Your task to perform on an android device: turn on wifi Image 0: 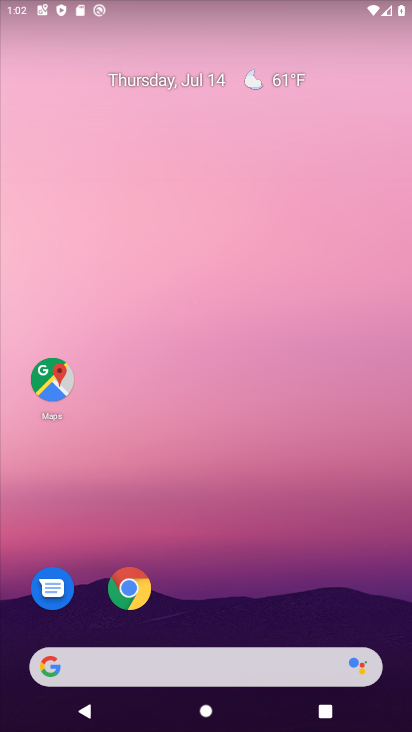
Step 0: drag from (228, 578) to (196, 217)
Your task to perform on an android device: turn on wifi Image 1: 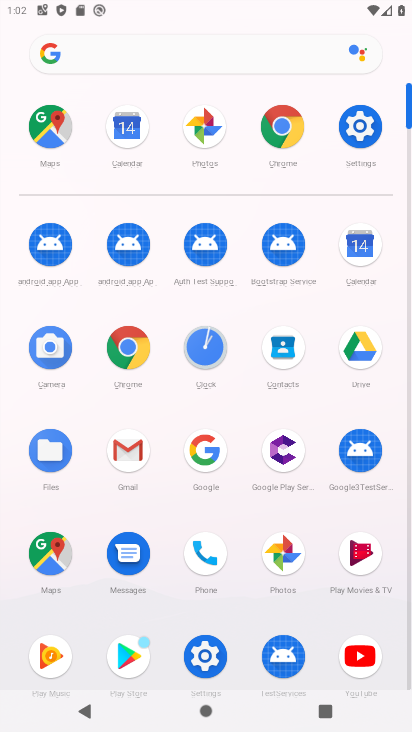
Step 1: click (349, 118)
Your task to perform on an android device: turn on wifi Image 2: 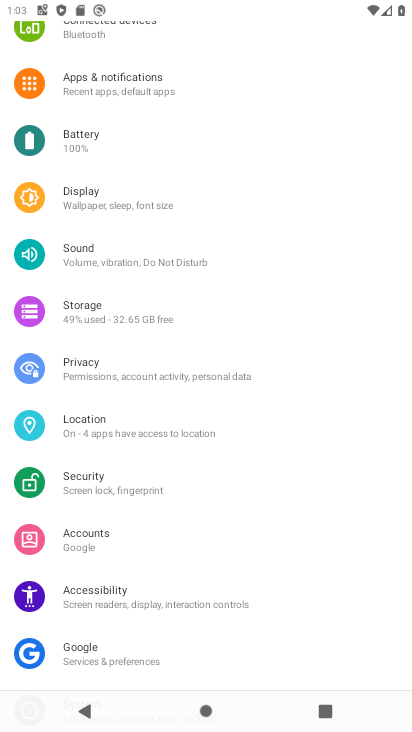
Step 2: drag from (184, 267) to (184, 536)
Your task to perform on an android device: turn on wifi Image 3: 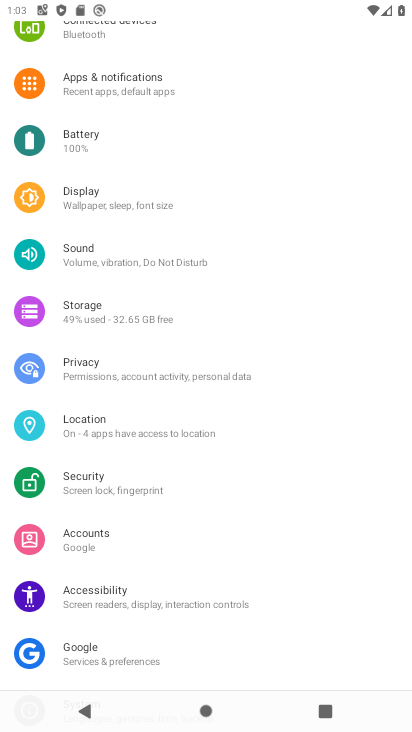
Step 3: click (152, 443)
Your task to perform on an android device: turn on wifi Image 4: 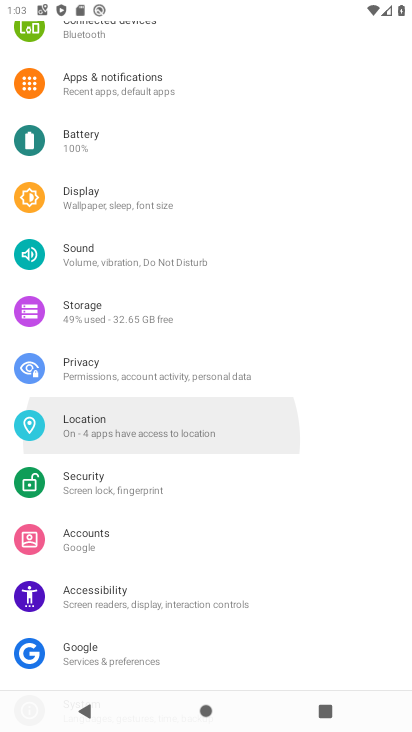
Step 4: click (248, 535)
Your task to perform on an android device: turn on wifi Image 5: 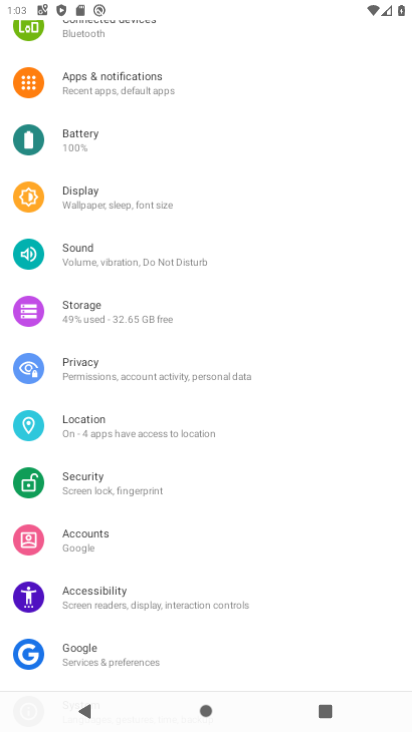
Step 5: click (205, 547)
Your task to perform on an android device: turn on wifi Image 6: 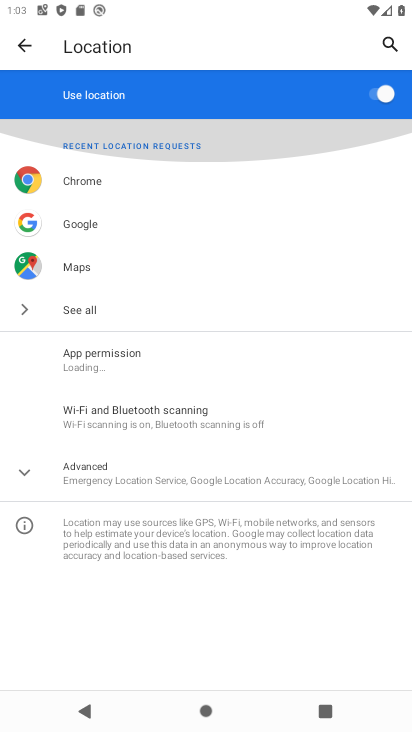
Step 6: drag from (253, 438) to (272, 535)
Your task to perform on an android device: turn on wifi Image 7: 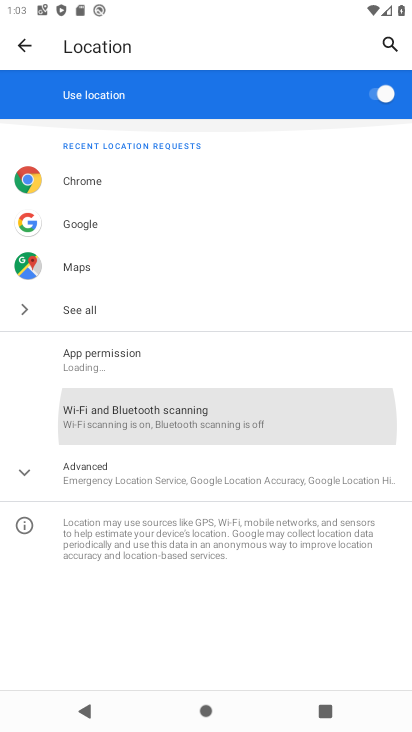
Step 7: click (222, 322)
Your task to perform on an android device: turn on wifi Image 8: 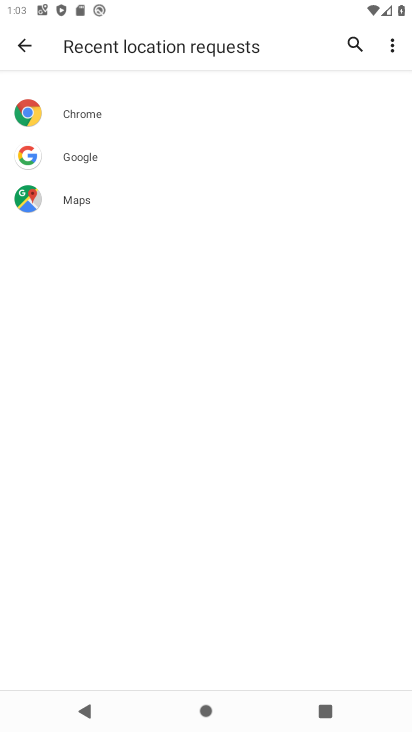
Step 8: click (19, 39)
Your task to perform on an android device: turn on wifi Image 9: 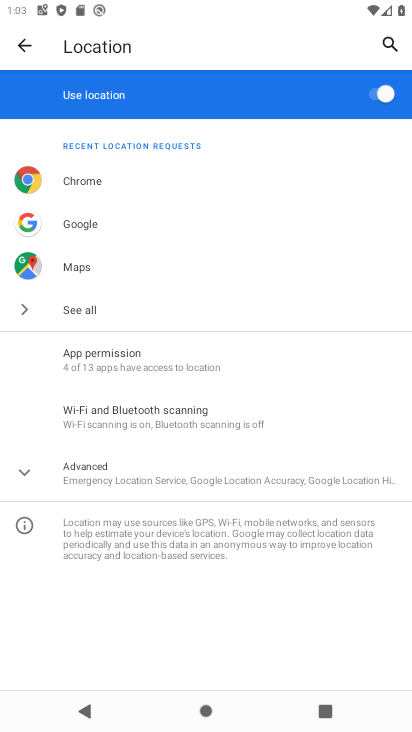
Step 9: click (15, 43)
Your task to perform on an android device: turn on wifi Image 10: 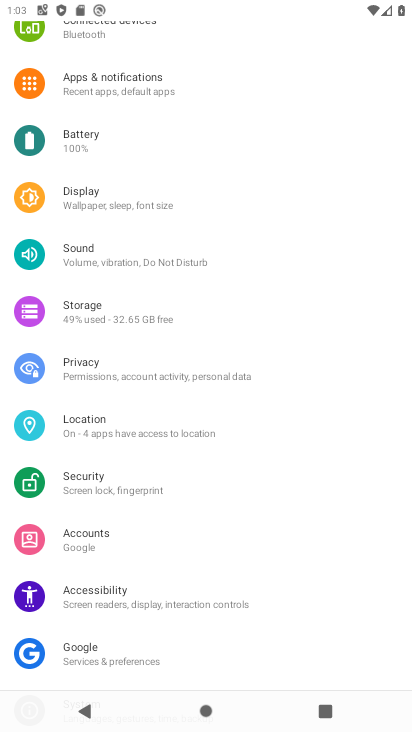
Step 10: drag from (131, 108) to (212, 488)
Your task to perform on an android device: turn on wifi Image 11: 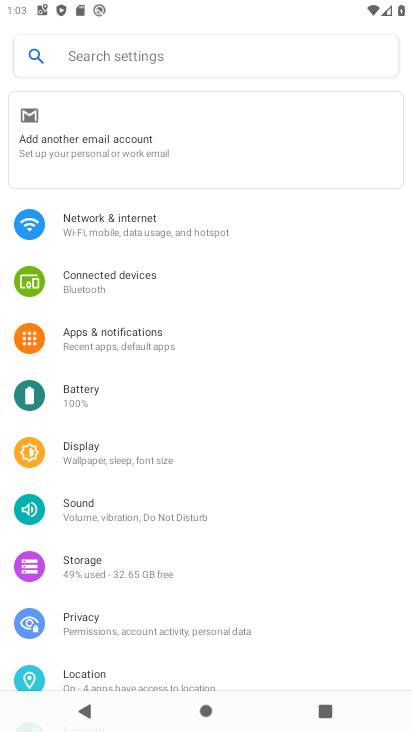
Step 11: click (139, 210)
Your task to perform on an android device: turn on wifi Image 12: 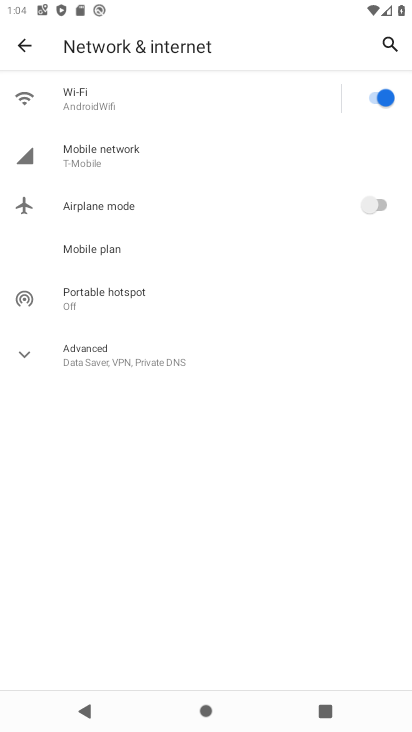
Step 12: task complete